Your task to perform on an android device: refresh tabs in the chrome app Image 0: 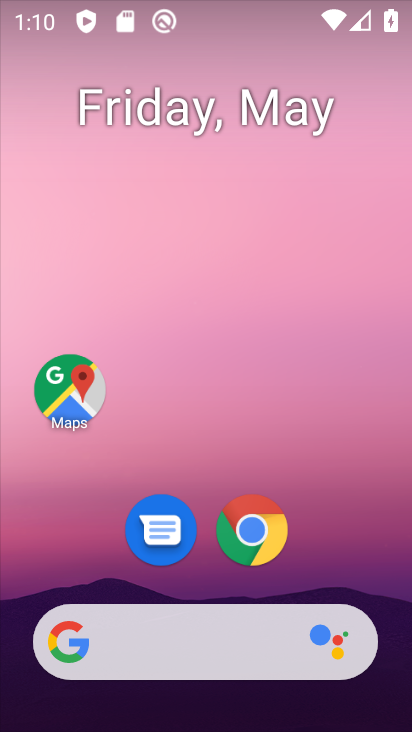
Step 0: click (392, 320)
Your task to perform on an android device: refresh tabs in the chrome app Image 1: 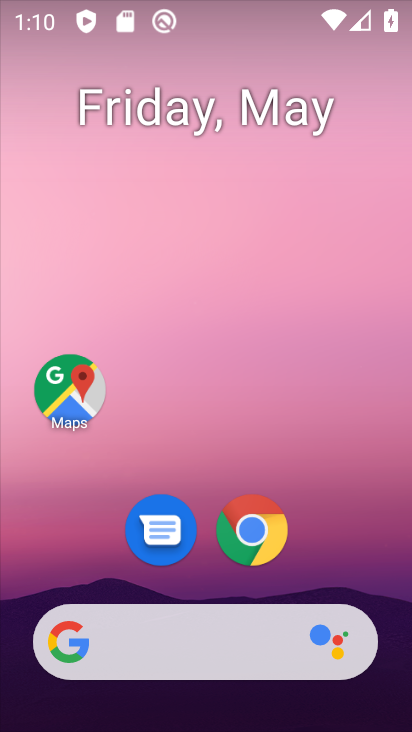
Step 1: click (260, 513)
Your task to perform on an android device: refresh tabs in the chrome app Image 2: 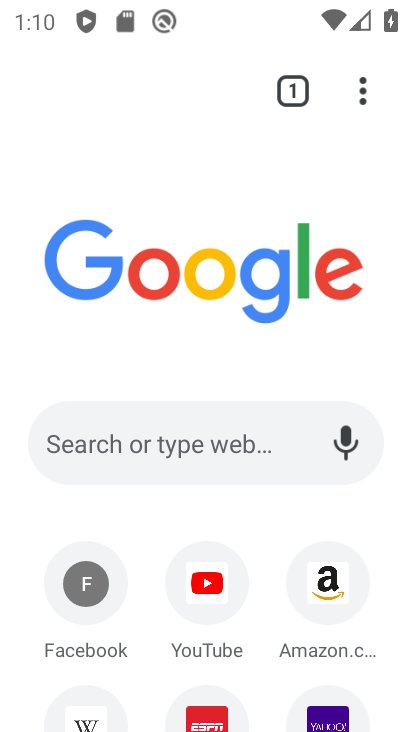
Step 2: click (364, 89)
Your task to perform on an android device: refresh tabs in the chrome app Image 3: 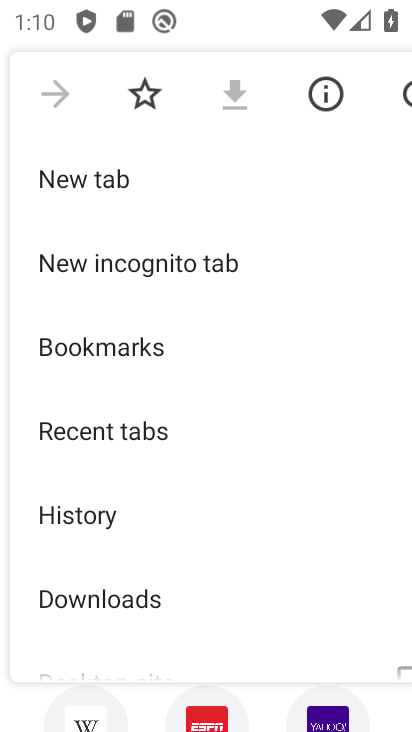
Step 3: drag from (180, 574) to (162, 374)
Your task to perform on an android device: refresh tabs in the chrome app Image 4: 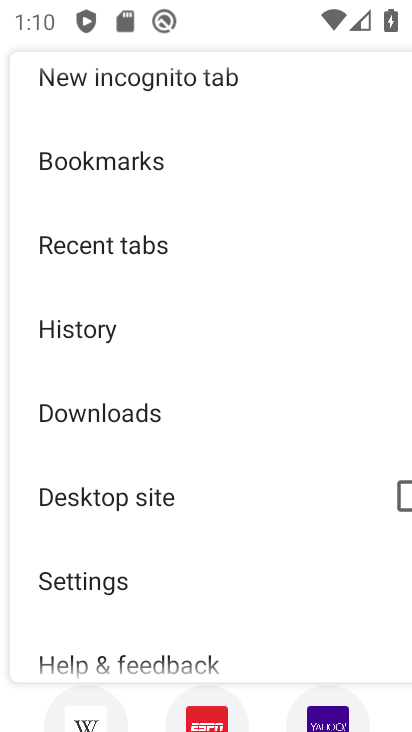
Step 4: click (95, 256)
Your task to perform on an android device: refresh tabs in the chrome app Image 5: 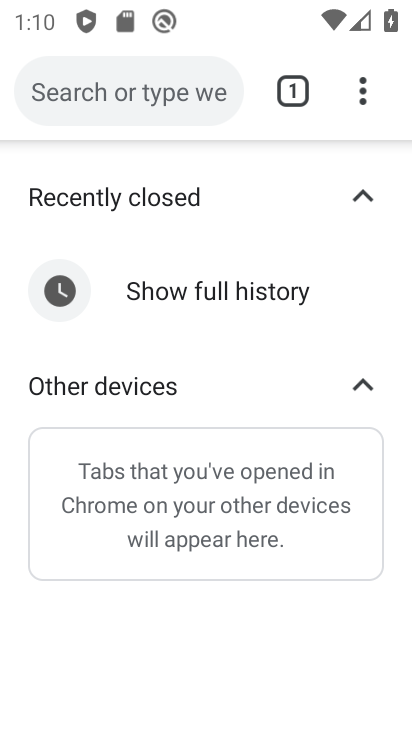
Step 5: click (352, 84)
Your task to perform on an android device: refresh tabs in the chrome app Image 6: 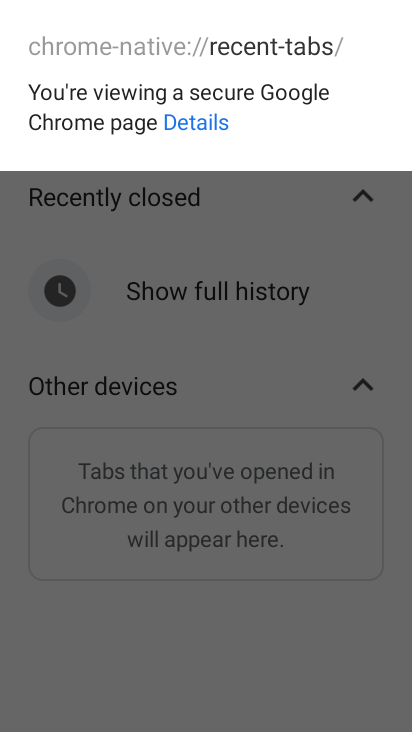
Step 6: click (241, 341)
Your task to perform on an android device: refresh tabs in the chrome app Image 7: 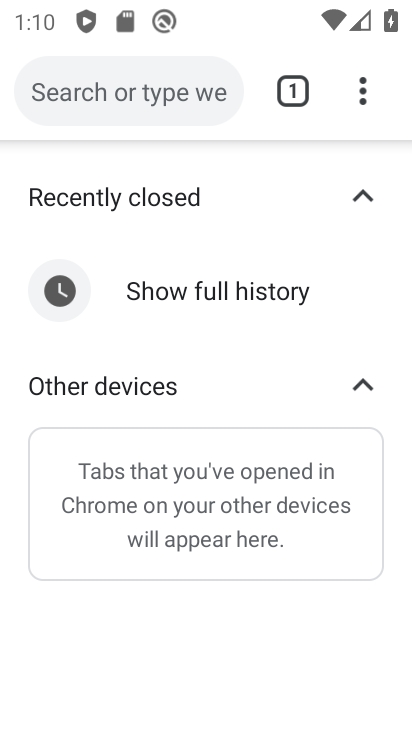
Step 7: click (364, 96)
Your task to perform on an android device: refresh tabs in the chrome app Image 8: 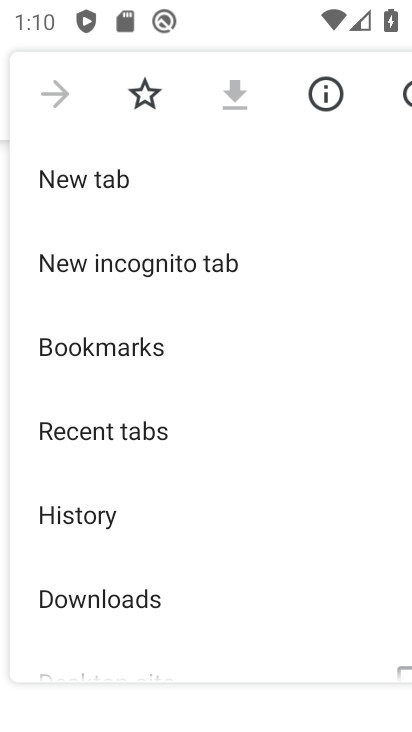
Step 8: click (398, 88)
Your task to perform on an android device: refresh tabs in the chrome app Image 9: 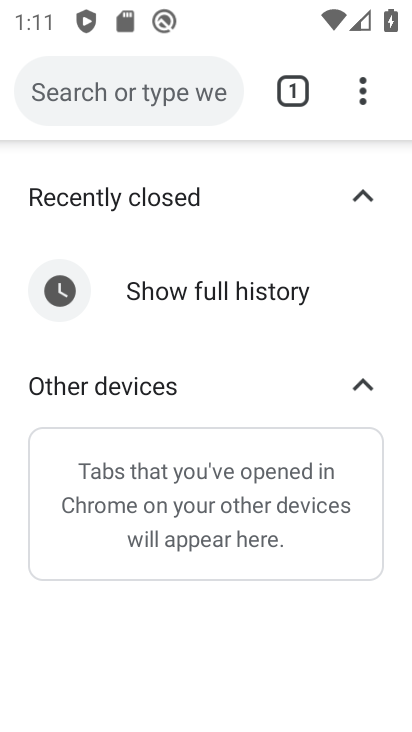
Step 9: task complete